Your task to perform on an android device: Turn off the flashlight Image 0: 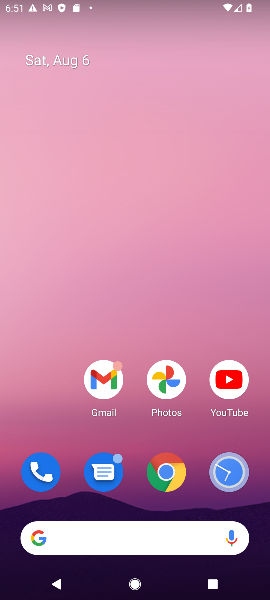
Step 0: drag from (159, 11) to (165, 338)
Your task to perform on an android device: Turn off the flashlight Image 1: 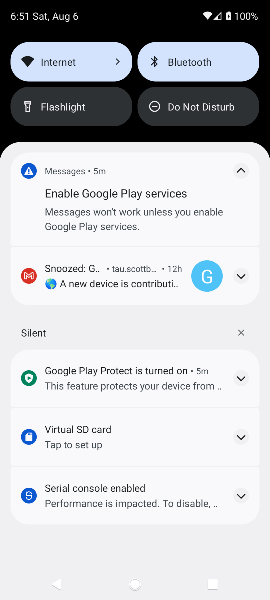
Step 1: click (55, 108)
Your task to perform on an android device: Turn off the flashlight Image 2: 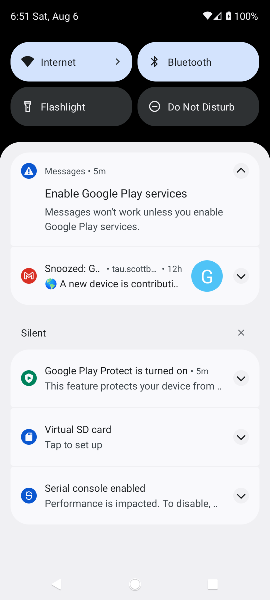
Step 2: click (55, 108)
Your task to perform on an android device: Turn off the flashlight Image 3: 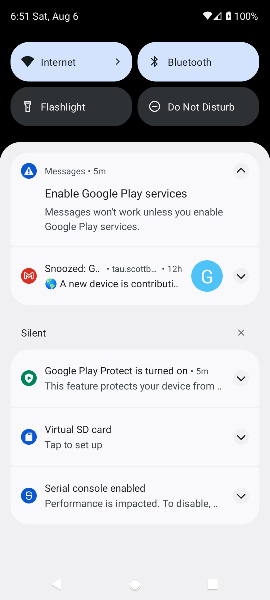
Step 3: task complete